Your task to perform on an android device: Clear all items from cart on ebay.com. Add macbook pro 13 inch to the cart on ebay.com, then select checkout. Image 0: 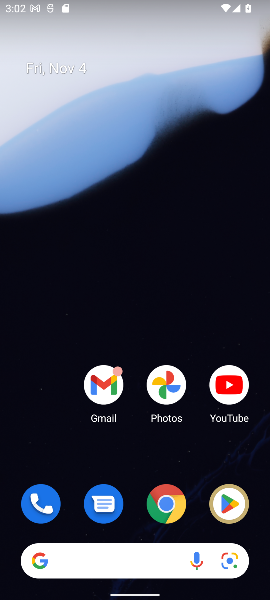
Step 0: click (171, 507)
Your task to perform on an android device: Clear all items from cart on ebay.com. Add macbook pro 13 inch to the cart on ebay.com, then select checkout. Image 1: 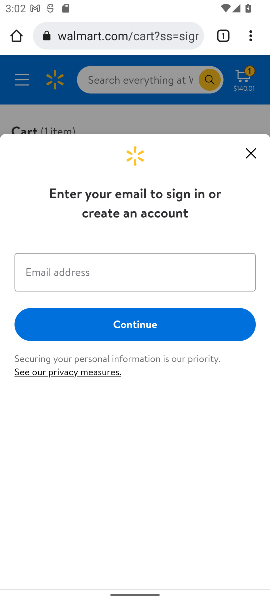
Step 1: click (97, 38)
Your task to perform on an android device: Clear all items from cart on ebay.com. Add macbook pro 13 inch to the cart on ebay.com, then select checkout. Image 2: 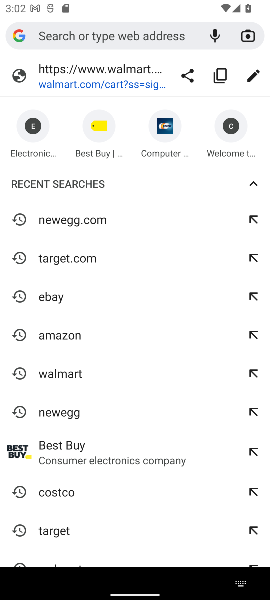
Step 2: click (58, 297)
Your task to perform on an android device: Clear all items from cart on ebay.com. Add macbook pro 13 inch to the cart on ebay.com, then select checkout. Image 3: 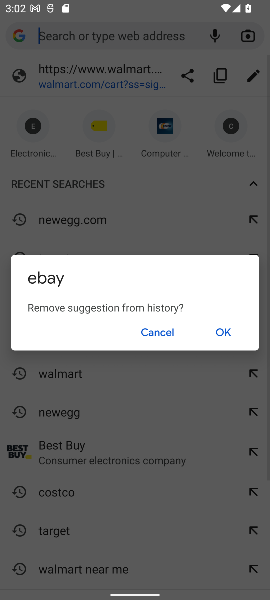
Step 3: click (154, 324)
Your task to perform on an android device: Clear all items from cart on ebay.com. Add macbook pro 13 inch to the cart on ebay.com, then select checkout. Image 4: 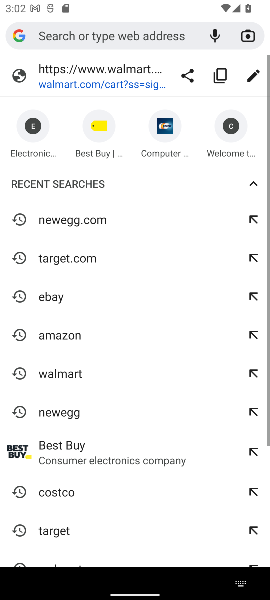
Step 4: click (48, 296)
Your task to perform on an android device: Clear all items from cart on ebay.com. Add macbook pro 13 inch to the cart on ebay.com, then select checkout. Image 5: 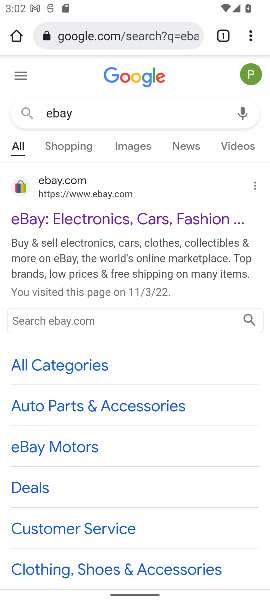
Step 5: click (73, 223)
Your task to perform on an android device: Clear all items from cart on ebay.com. Add macbook pro 13 inch to the cart on ebay.com, then select checkout. Image 6: 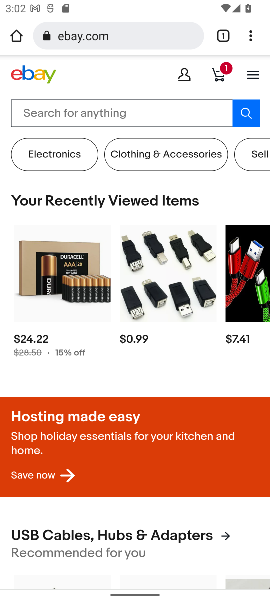
Step 6: click (218, 74)
Your task to perform on an android device: Clear all items from cart on ebay.com. Add macbook pro 13 inch to the cart on ebay.com, then select checkout. Image 7: 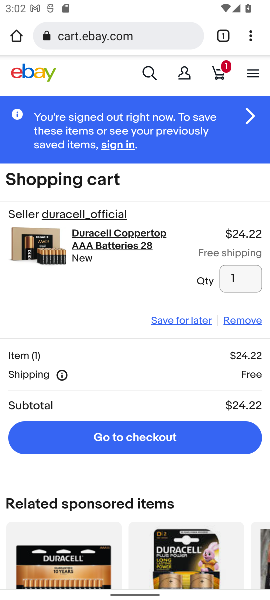
Step 7: click (251, 324)
Your task to perform on an android device: Clear all items from cart on ebay.com. Add macbook pro 13 inch to the cart on ebay.com, then select checkout. Image 8: 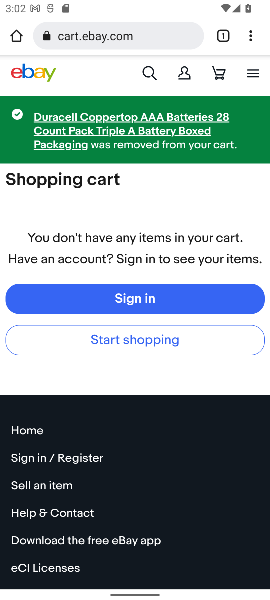
Step 8: click (145, 72)
Your task to perform on an android device: Clear all items from cart on ebay.com. Add macbook pro 13 inch to the cart on ebay.com, then select checkout. Image 9: 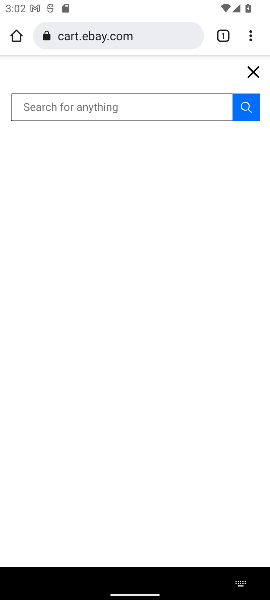
Step 9: type "macbook pro 13 inch"
Your task to perform on an android device: Clear all items from cart on ebay.com. Add macbook pro 13 inch to the cart on ebay.com, then select checkout. Image 10: 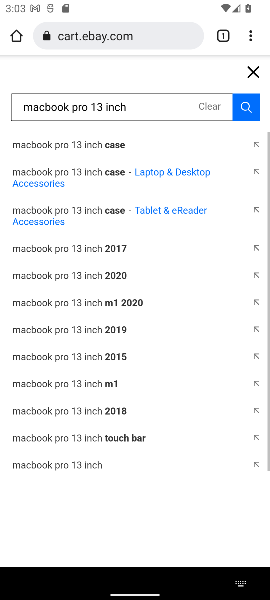
Step 10: click (251, 115)
Your task to perform on an android device: Clear all items from cart on ebay.com. Add macbook pro 13 inch to the cart on ebay.com, then select checkout. Image 11: 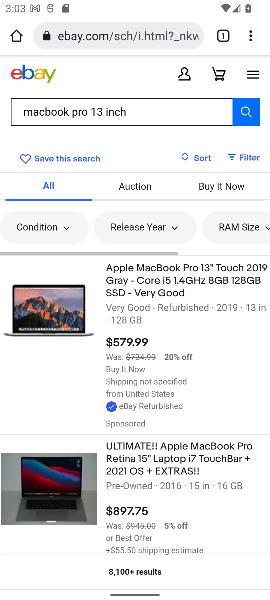
Step 11: click (139, 312)
Your task to perform on an android device: Clear all items from cart on ebay.com. Add macbook pro 13 inch to the cart on ebay.com, then select checkout. Image 12: 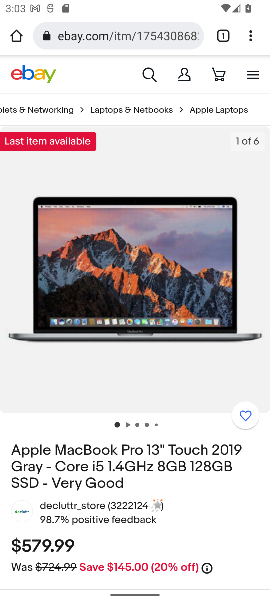
Step 12: drag from (111, 457) to (135, 223)
Your task to perform on an android device: Clear all items from cart on ebay.com. Add macbook pro 13 inch to the cart on ebay.com, then select checkout. Image 13: 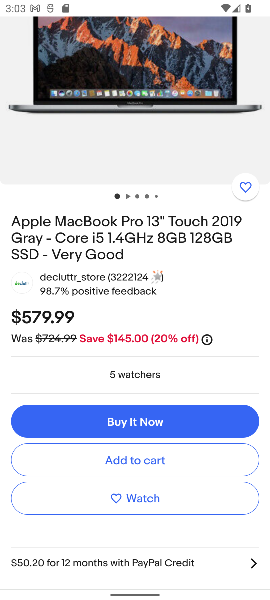
Step 13: click (106, 464)
Your task to perform on an android device: Clear all items from cart on ebay.com. Add macbook pro 13 inch to the cart on ebay.com, then select checkout. Image 14: 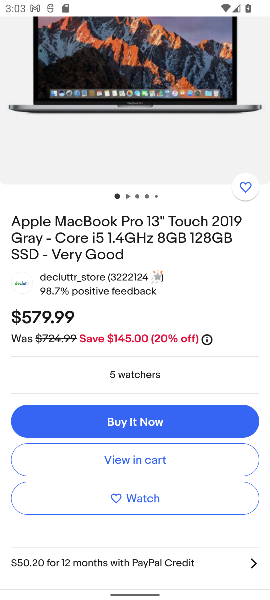
Step 14: click (102, 452)
Your task to perform on an android device: Clear all items from cart on ebay.com. Add macbook pro 13 inch to the cart on ebay.com, then select checkout. Image 15: 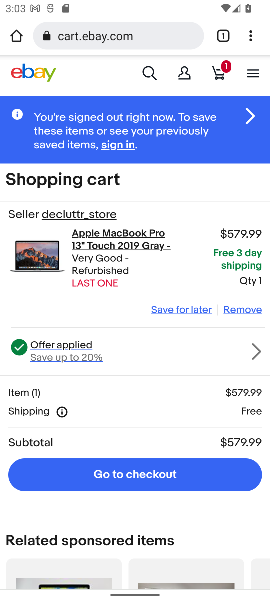
Step 15: click (110, 470)
Your task to perform on an android device: Clear all items from cart on ebay.com. Add macbook pro 13 inch to the cart on ebay.com, then select checkout. Image 16: 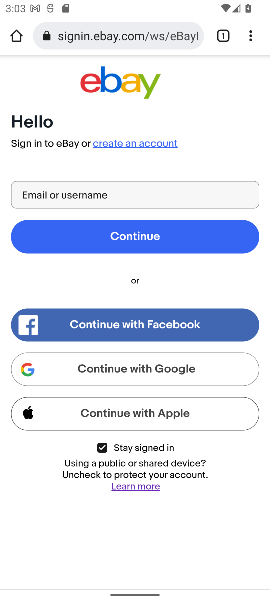
Step 16: task complete